Your task to perform on an android device: Go to display settings Image 0: 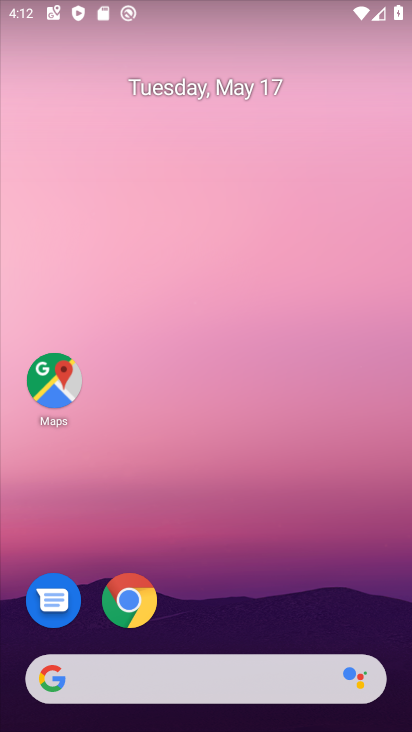
Step 0: drag from (245, 616) to (255, 21)
Your task to perform on an android device: Go to display settings Image 1: 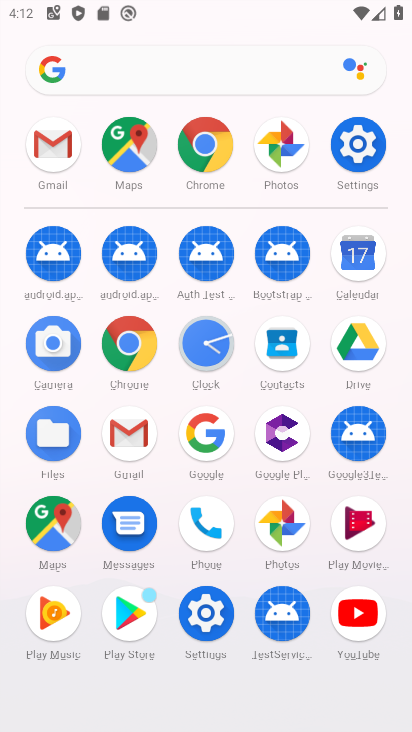
Step 1: click (204, 644)
Your task to perform on an android device: Go to display settings Image 2: 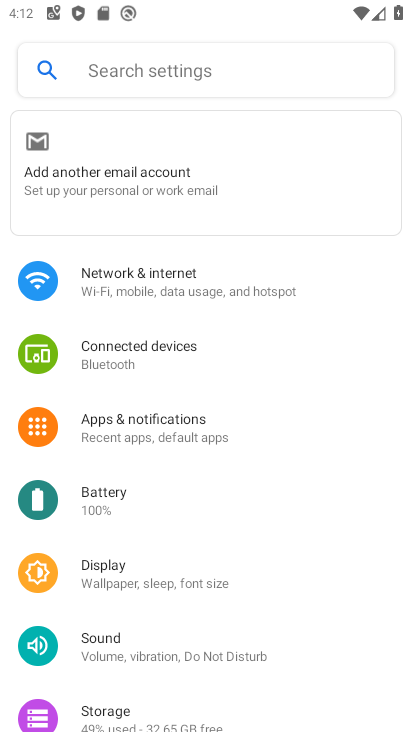
Step 2: click (109, 576)
Your task to perform on an android device: Go to display settings Image 3: 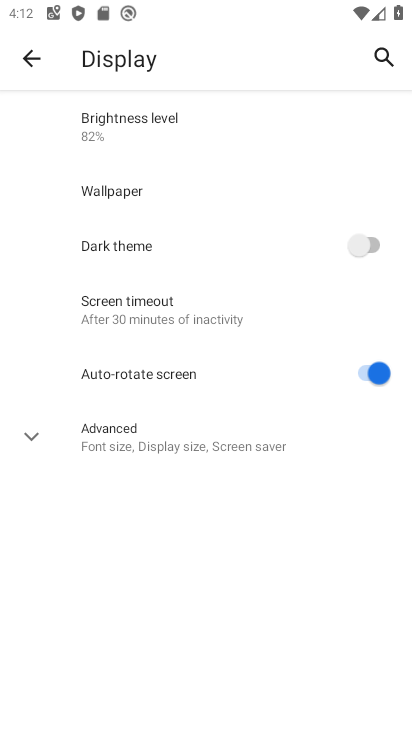
Step 3: task complete